Your task to perform on an android device: Go to calendar. Show me events next week Image 0: 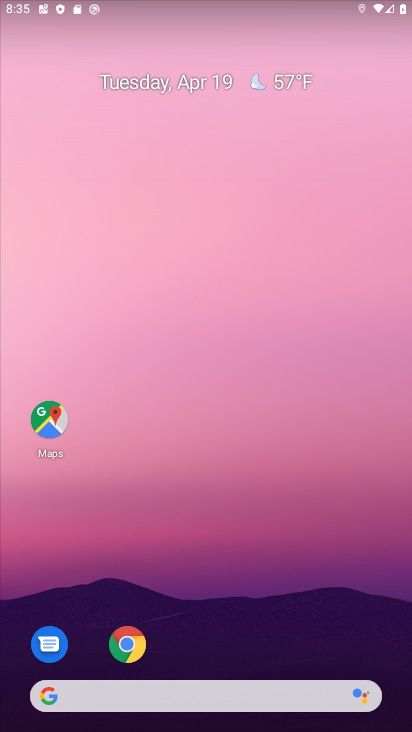
Step 0: drag from (185, 646) to (244, 34)
Your task to perform on an android device: Go to calendar. Show me events next week Image 1: 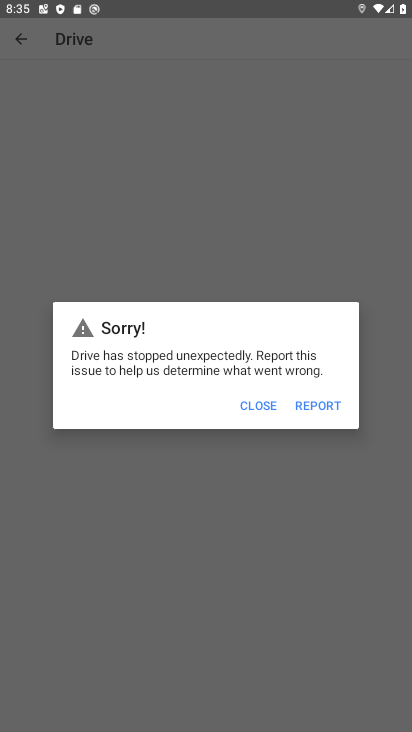
Step 1: press back button
Your task to perform on an android device: Go to calendar. Show me events next week Image 2: 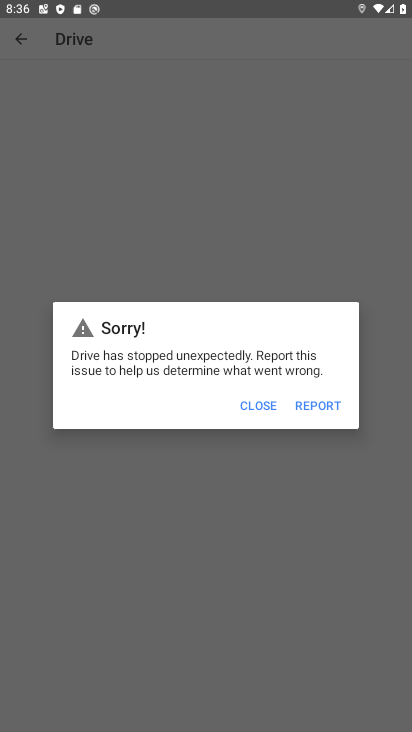
Step 2: press back button
Your task to perform on an android device: Go to calendar. Show me events next week Image 3: 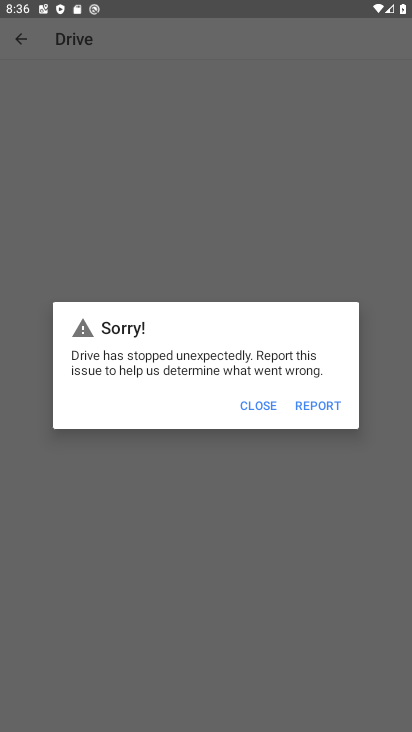
Step 3: press back button
Your task to perform on an android device: Go to calendar. Show me events next week Image 4: 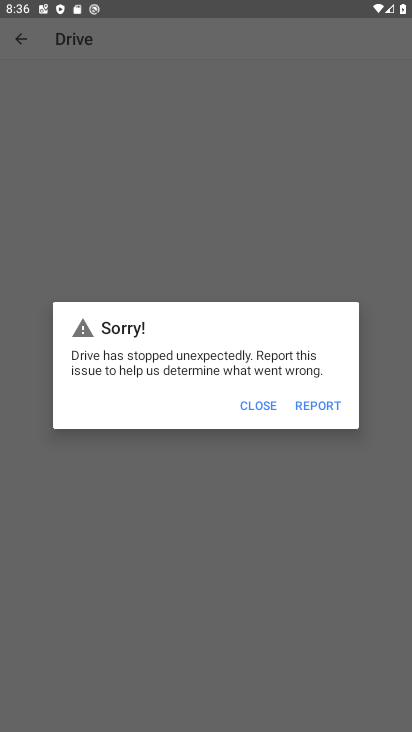
Step 4: press back button
Your task to perform on an android device: Go to calendar. Show me events next week Image 5: 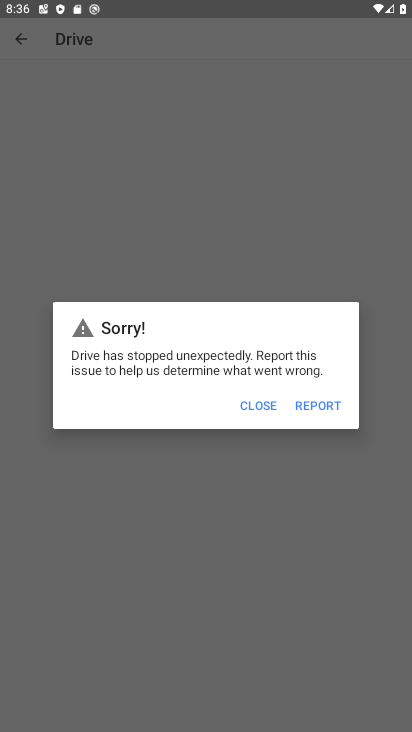
Step 5: press back button
Your task to perform on an android device: Go to calendar. Show me events next week Image 6: 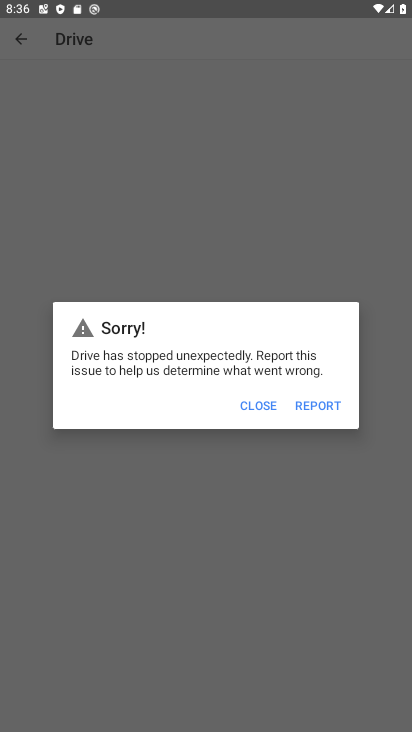
Step 6: click (246, 400)
Your task to perform on an android device: Go to calendar. Show me events next week Image 7: 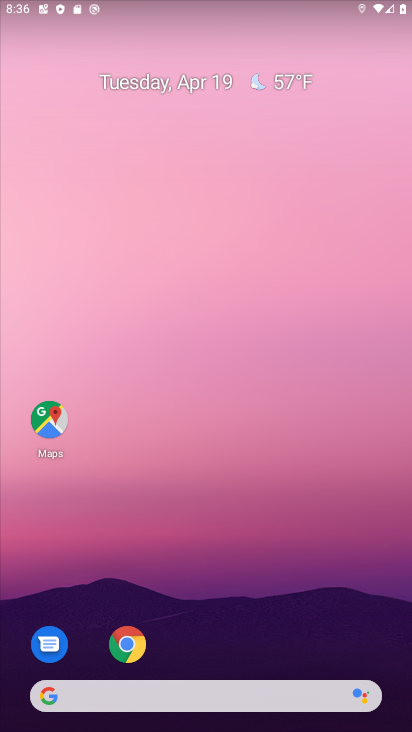
Step 7: drag from (261, 556) to (333, 193)
Your task to perform on an android device: Go to calendar. Show me events next week Image 8: 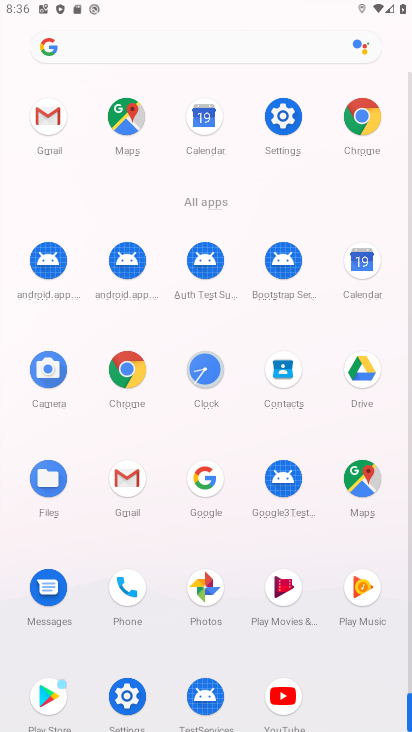
Step 8: click (367, 267)
Your task to perform on an android device: Go to calendar. Show me events next week Image 9: 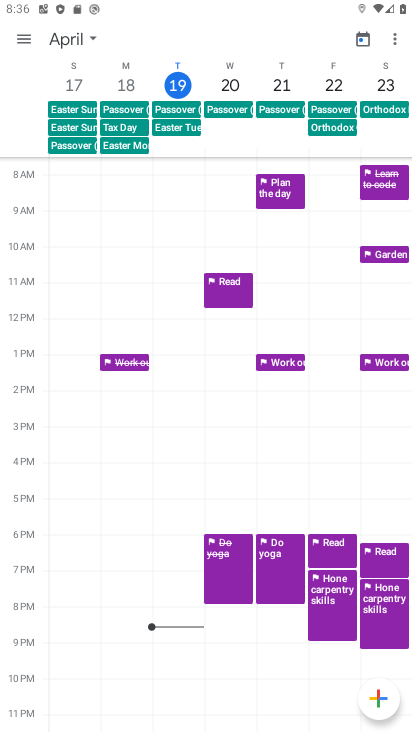
Step 9: click (68, 39)
Your task to perform on an android device: Go to calendar. Show me events next week Image 10: 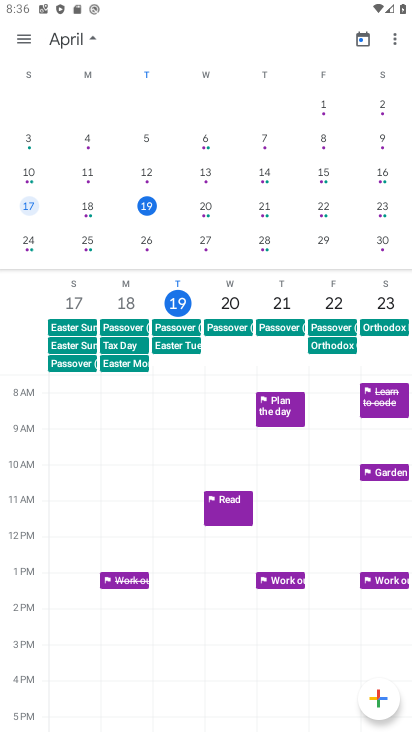
Step 10: click (25, 239)
Your task to perform on an android device: Go to calendar. Show me events next week Image 11: 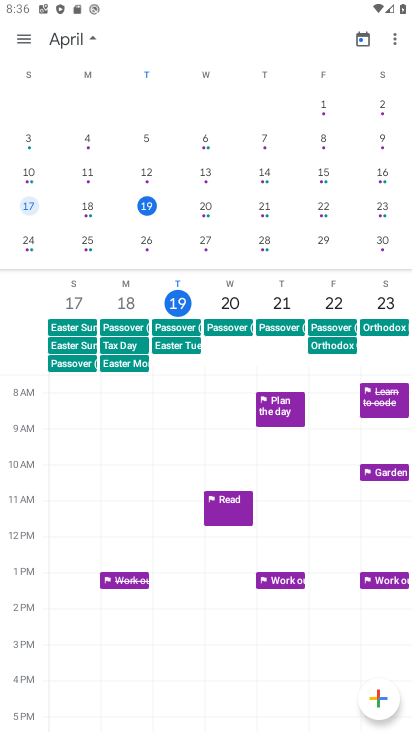
Step 11: click (31, 241)
Your task to perform on an android device: Go to calendar. Show me events next week Image 12: 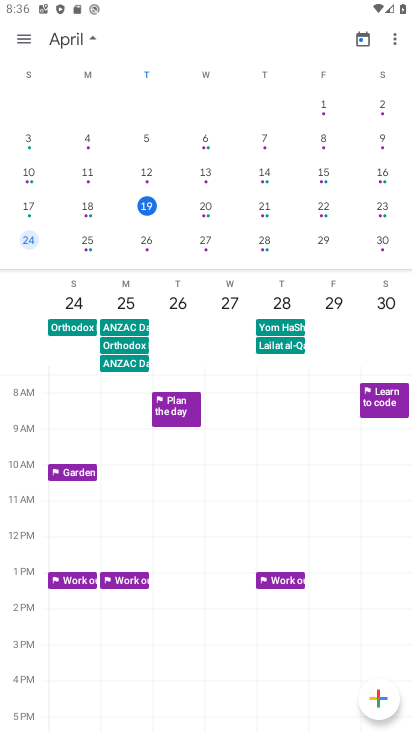
Step 12: click (31, 243)
Your task to perform on an android device: Go to calendar. Show me events next week Image 13: 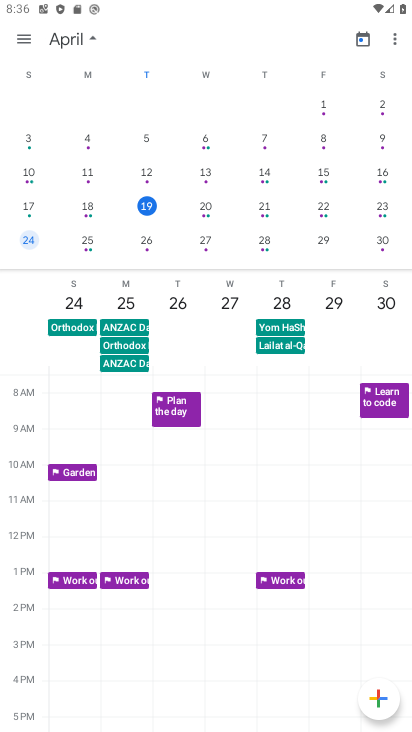
Step 13: click (22, 244)
Your task to perform on an android device: Go to calendar. Show me events next week Image 14: 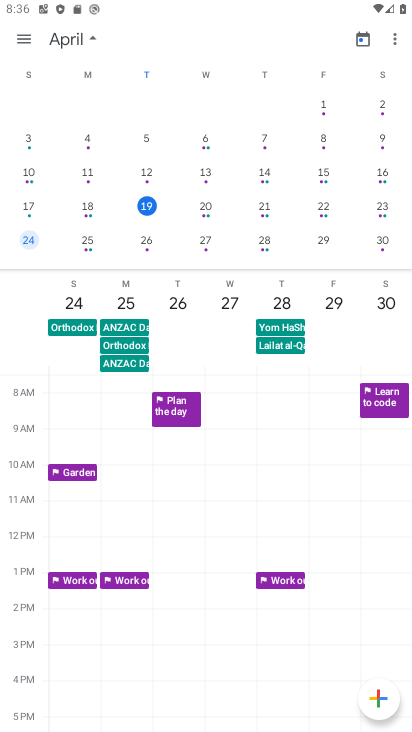
Step 14: click (23, 245)
Your task to perform on an android device: Go to calendar. Show me events next week Image 15: 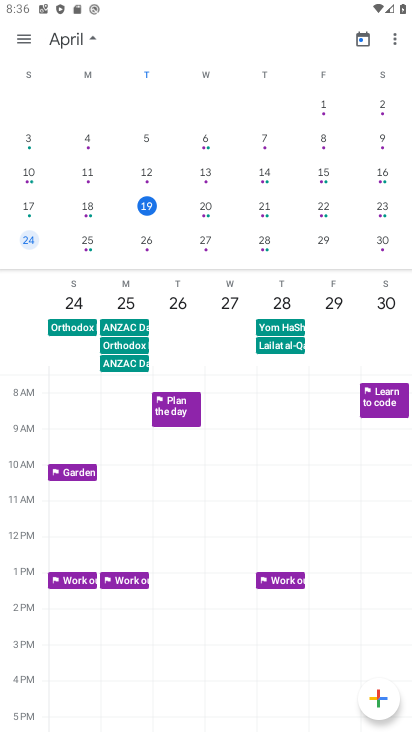
Step 15: click (30, 239)
Your task to perform on an android device: Go to calendar. Show me events next week Image 16: 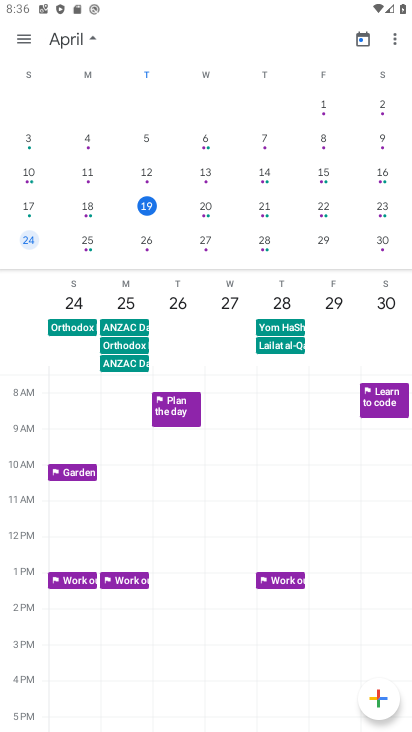
Step 16: click (25, 237)
Your task to perform on an android device: Go to calendar. Show me events next week Image 17: 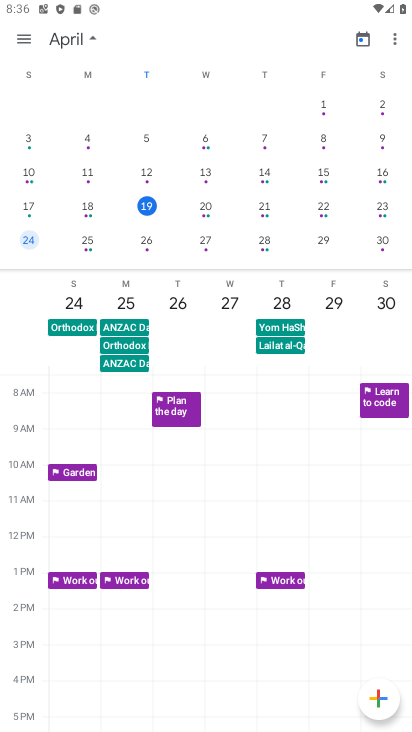
Step 17: click (95, 31)
Your task to perform on an android device: Go to calendar. Show me events next week Image 18: 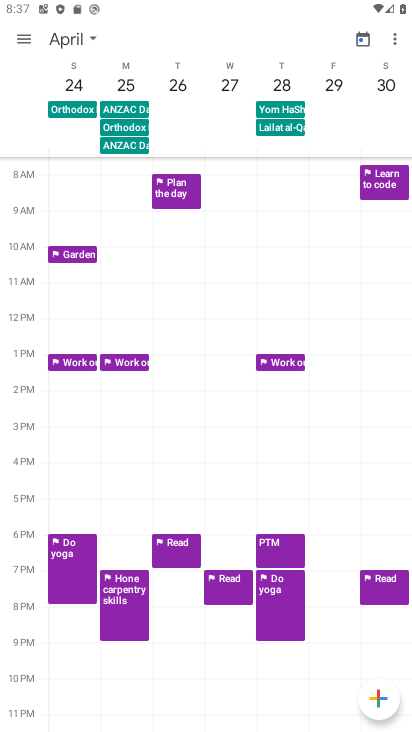
Step 18: task complete